Your task to perform on an android device: check out phone information Image 0: 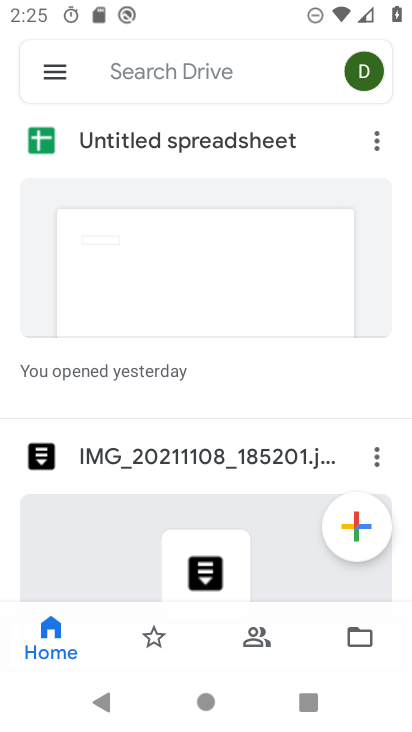
Step 0: press home button
Your task to perform on an android device: check out phone information Image 1: 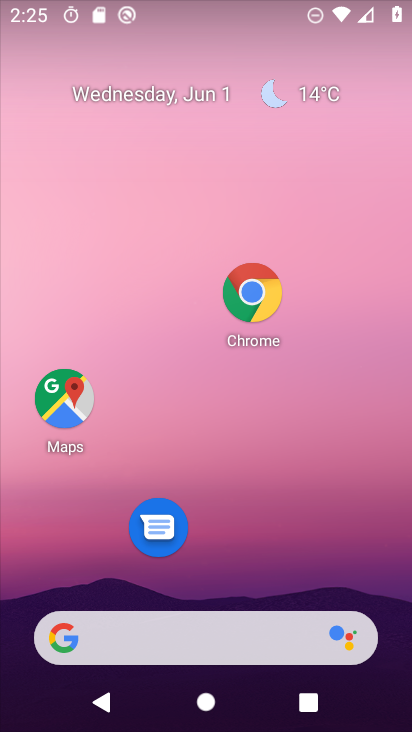
Step 1: drag from (226, 448) to (236, 322)
Your task to perform on an android device: check out phone information Image 2: 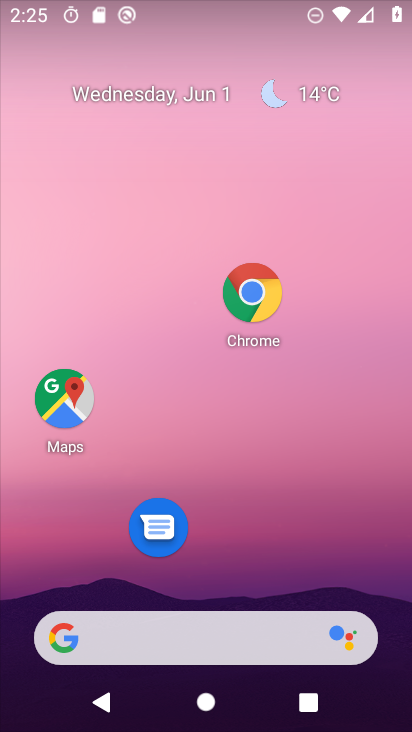
Step 2: drag from (233, 641) to (234, 251)
Your task to perform on an android device: check out phone information Image 3: 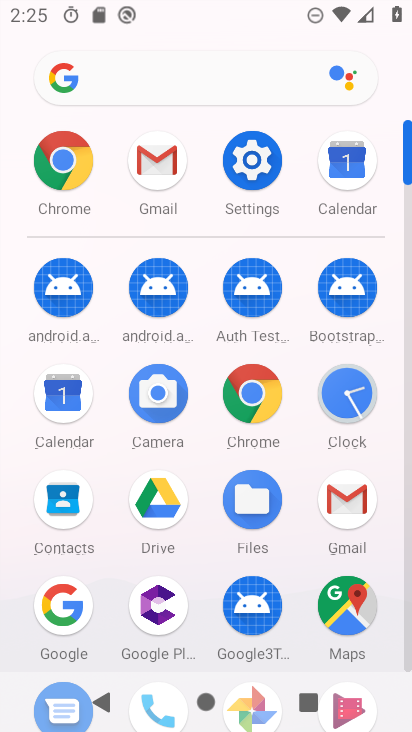
Step 3: click (255, 174)
Your task to perform on an android device: check out phone information Image 4: 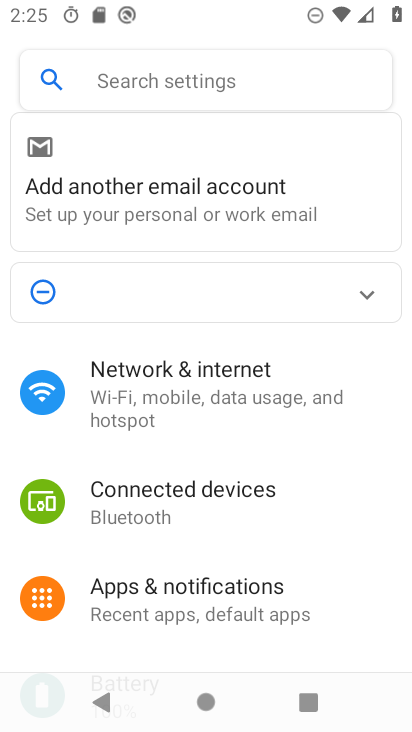
Step 4: click (211, 359)
Your task to perform on an android device: check out phone information Image 5: 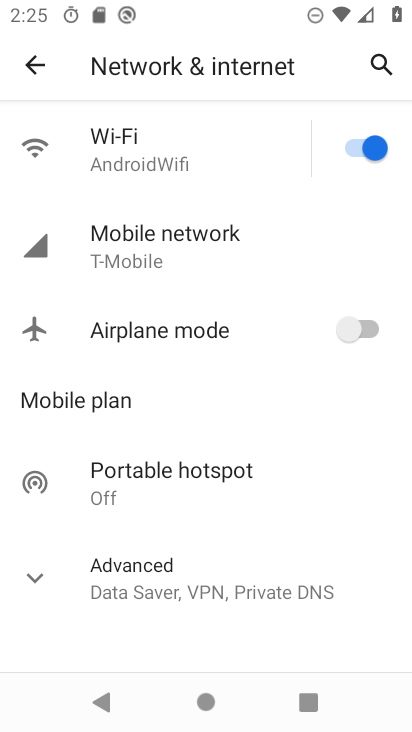
Step 5: drag from (192, 455) to (200, 355)
Your task to perform on an android device: check out phone information Image 6: 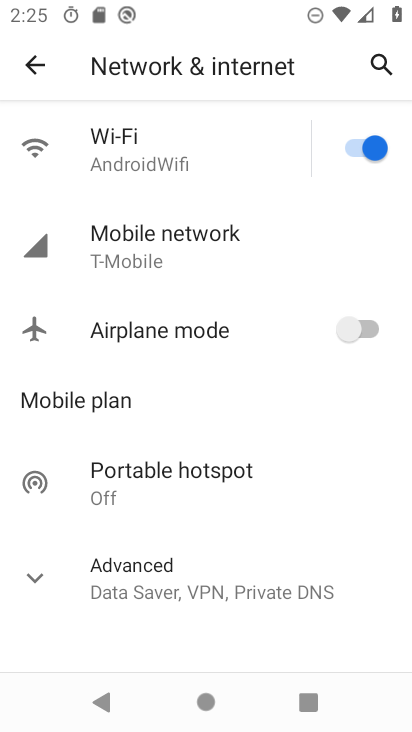
Step 6: click (38, 72)
Your task to perform on an android device: check out phone information Image 7: 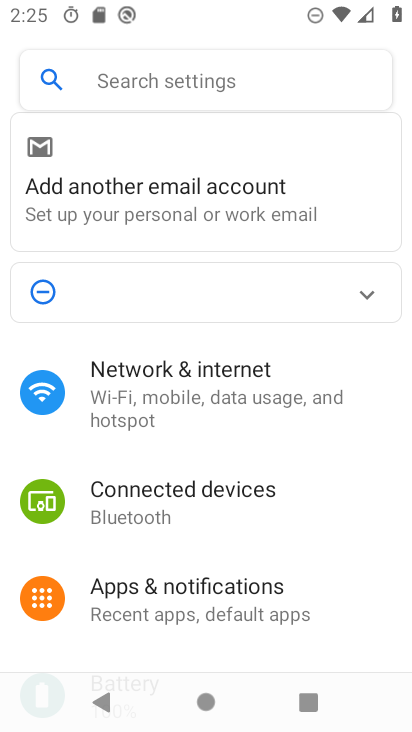
Step 7: drag from (169, 467) to (148, 102)
Your task to perform on an android device: check out phone information Image 8: 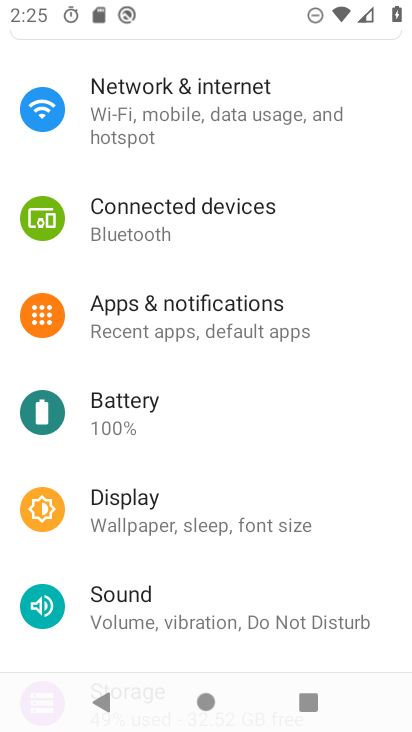
Step 8: drag from (160, 375) to (164, 170)
Your task to perform on an android device: check out phone information Image 9: 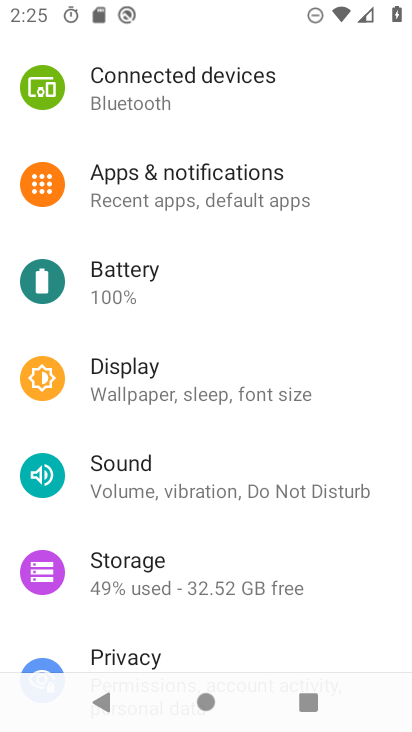
Step 9: drag from (182, 432) to (206, 185)
Your task to perform on an android device: check out phone information Image 10: 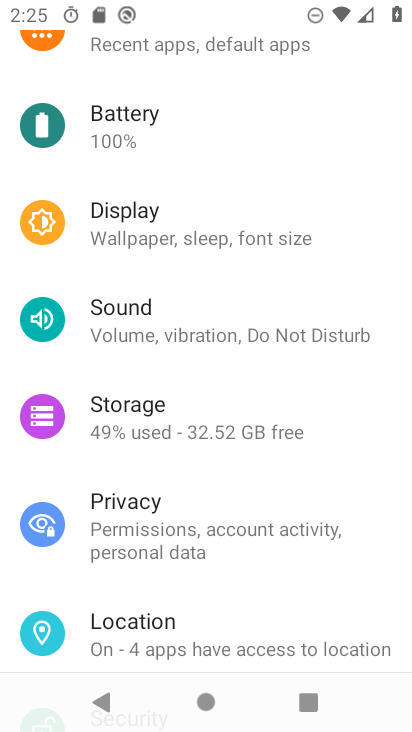
Step 10: drag from (176, 387) to (179, 209)
Your task to perform on an android device: check out phone information Image 11: 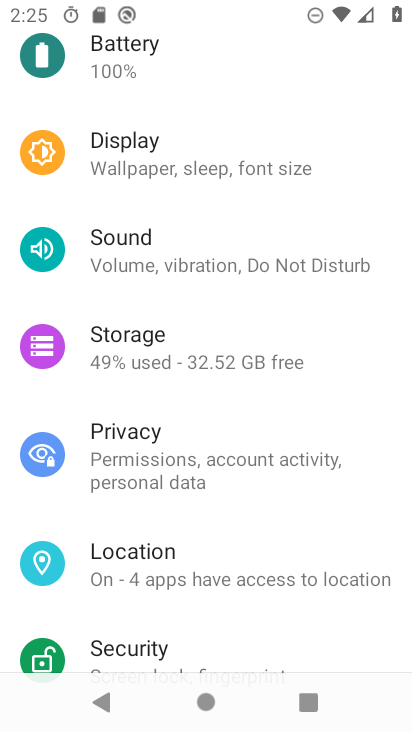
Step 11: drag from (194, 593) to (185, 72)
Your task to perform on an android device: check out phone information Image 12: 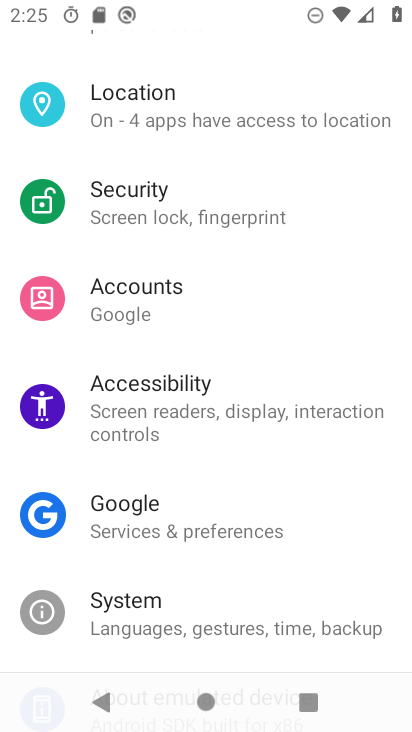
Step 12: drag from (201, 489) to (184, 184)
Your task to perform on an android device: check out phone information Image 13: 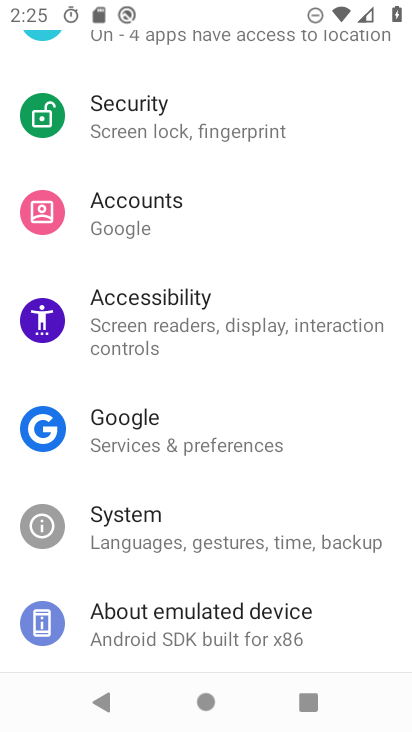
Step 13: click (168, 625)
Your task to perform on an android device: check out phone information Image 14: 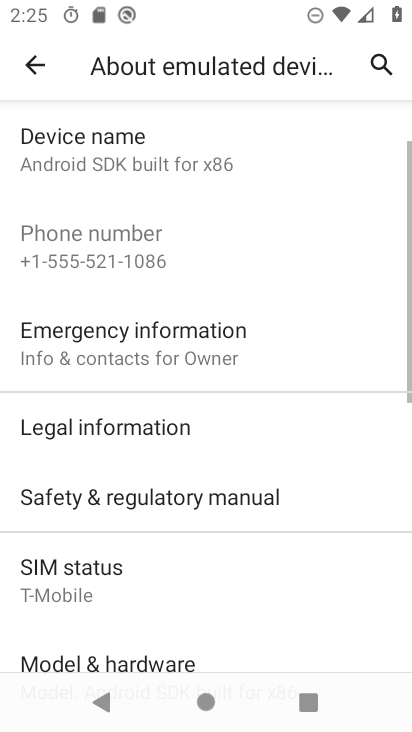
Step 14: task complete